Your task to perform on an android device: Open Google Maps and go to "Timeline" Image 0: 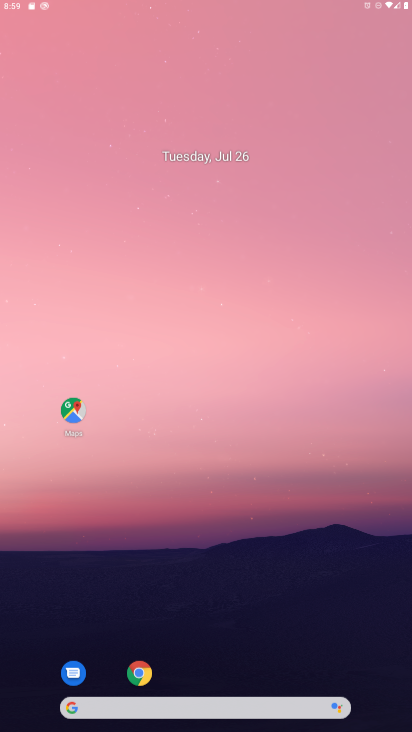
Step 0: click (107, 25)
Your task to perform on an android device: Open Google Maps and go to "Timeline" Image 1: 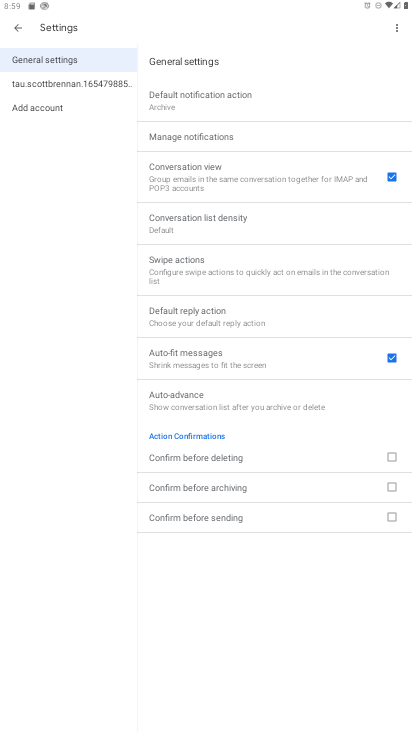
Step 1: press home button
Your task to perform on an android device: Open Google Maps and go to "Timeline" Image 2: 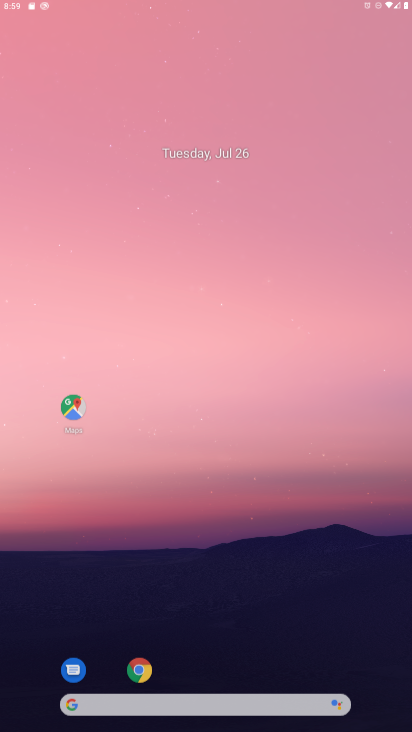
Step 2: drag from (334, 544) to (126, 0)
Your task to perform on an android device: Open Google Maps and go to "Timeline" Image 3: 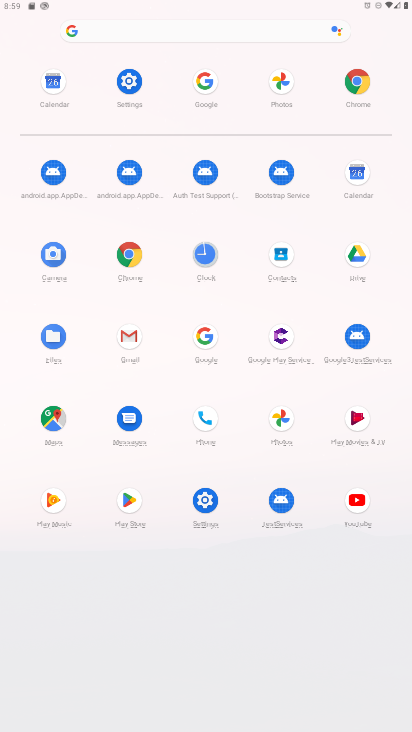
Step 3: click (52, 425)
Your task to perform on an android device: Open Google Maps and go to "Timeline" Image 4: 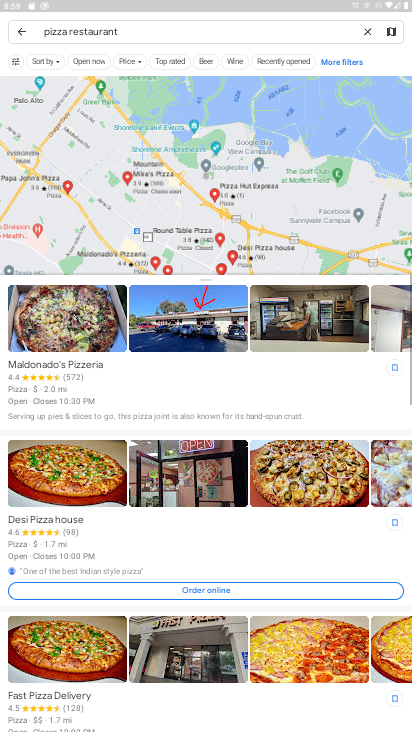
Step 4: click (370, 32)
Your task to perform on an android device: Open Google Maps and go to "Timeline" Image 5: 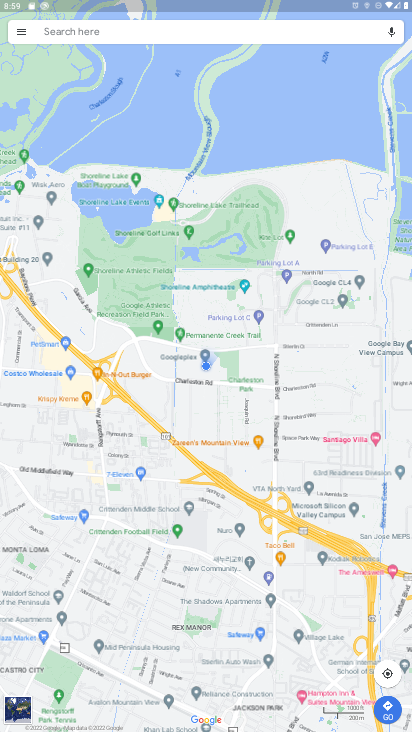
Step 5: click (19, 32)
Your task to perform on an android device: Open Google Maps and go to "Timeline" Image 6: 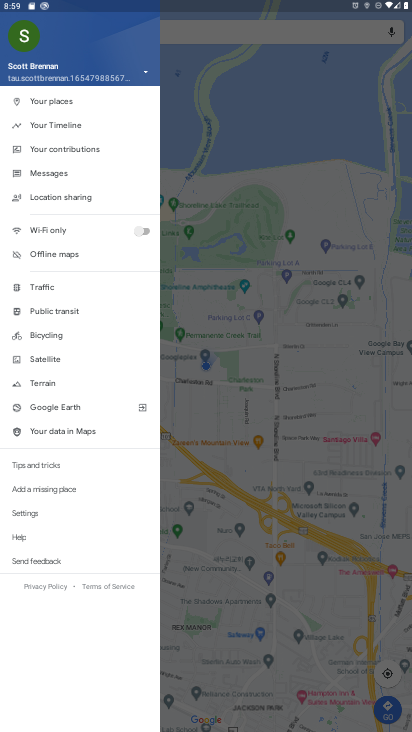
Step 6: click (55, 130)
Your task to perform on an android device: Open Google Maps and go to "Timeline" Image 7: 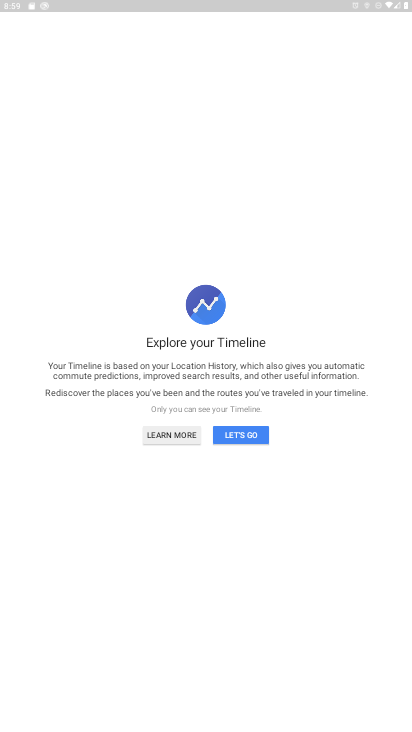
Step 7: task complete